Your task to perform on an android device: check battery use Image 0: 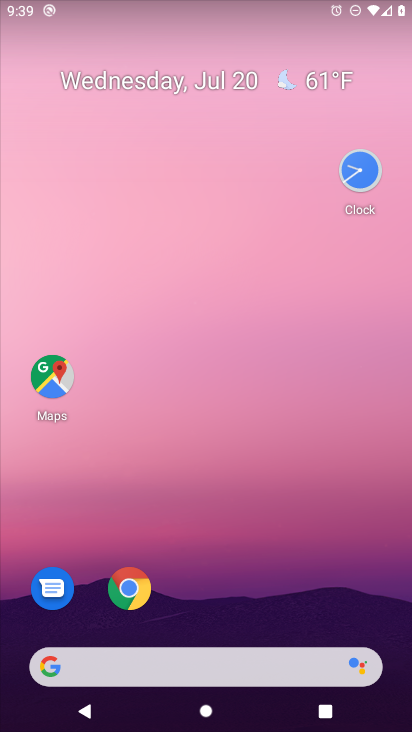
Step 0: drag from (43, 701) to (162, 233)
Your task to perform on an android device: check battery use Image 1: 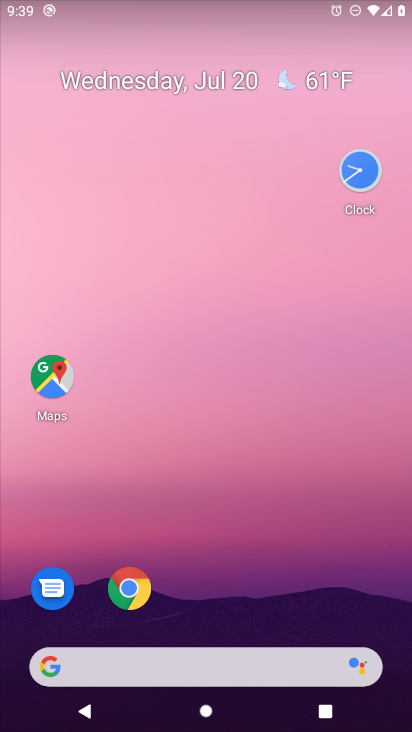
Step 1: drag from (56, 708) to (172, 96)
Your task to perform on an android device: check battery use Image 2: 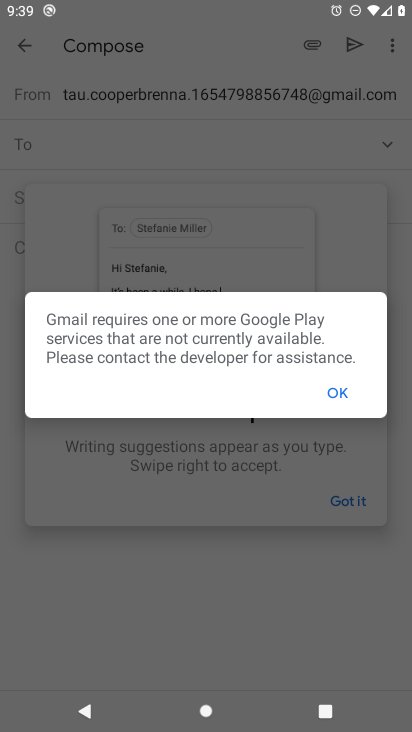
Step 2: press home button
Your task to perform on an android device: check battery use Image 3: 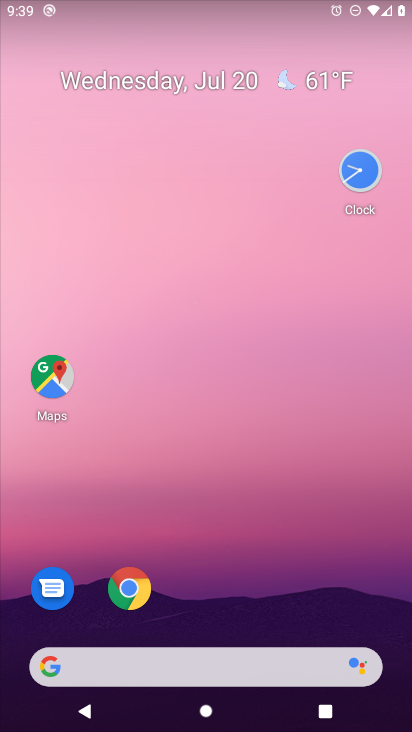
Step 3: drag from (24, 704) to (245, 7)
Your task to perform on an android device: check battery use Image 4: 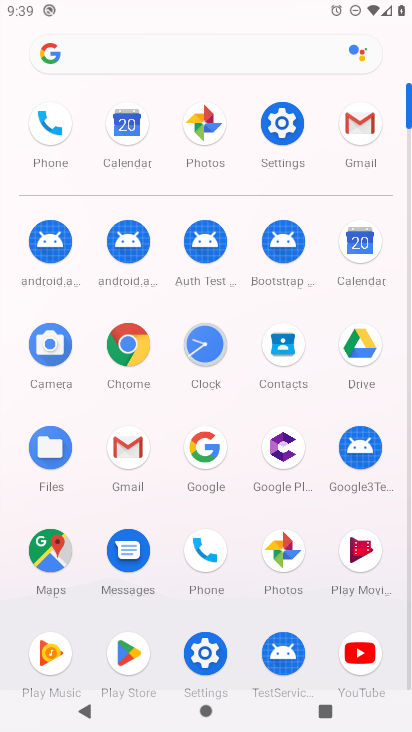
Step 4: click (194, 668)
Your task to perform on an android device: check battery use Image 5: 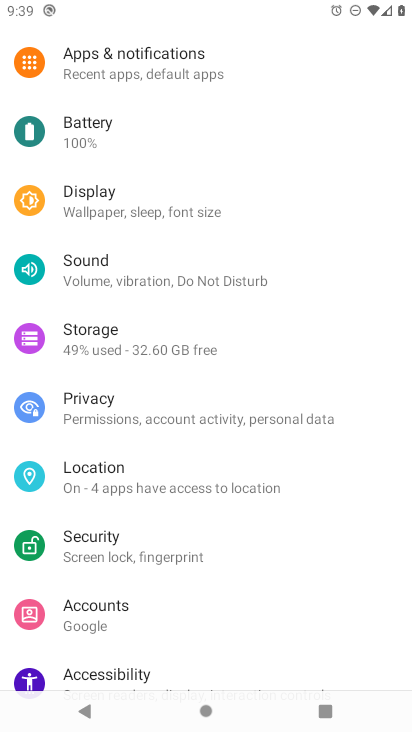
Step 5: click (101, 137)
Your task to perform on an android device: check battery use Image 6: 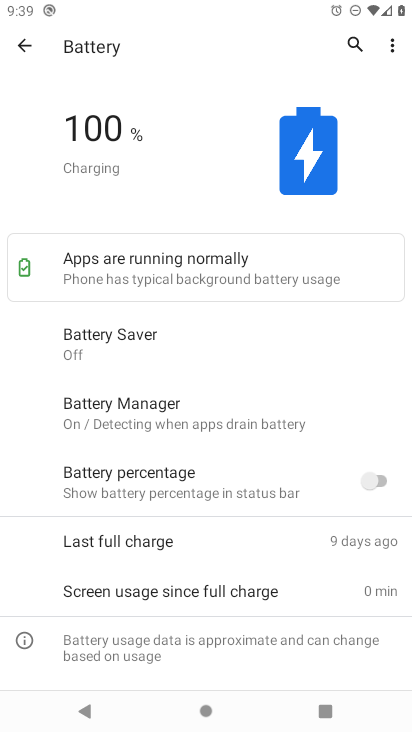
Step 6: task complete